Your task to perform on an android device: turn on the 12-hour format for clock Image 0: 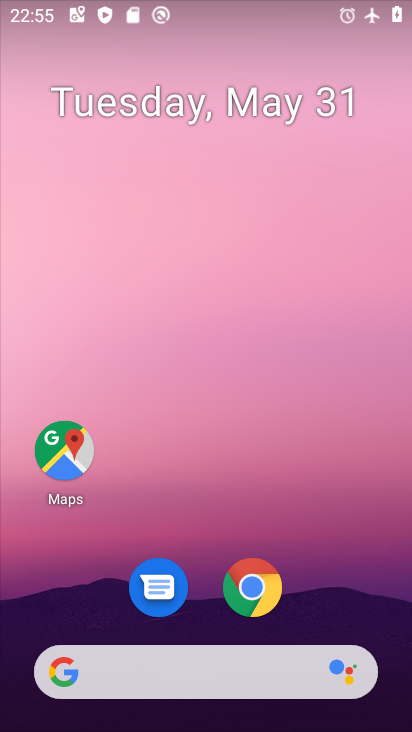
Step 0: drag from (345, 596) to (348, 106)
Your task to perform on an android device: turn on the 12-hour format for clock Image 1: 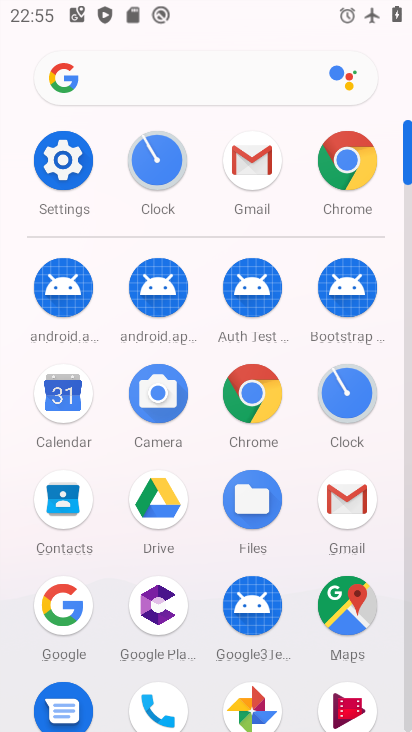
Step 1: drag from (293, 546) to (308, 263)
Your task to perform on an android device: turn on the 12-hour format for clock Image 2: 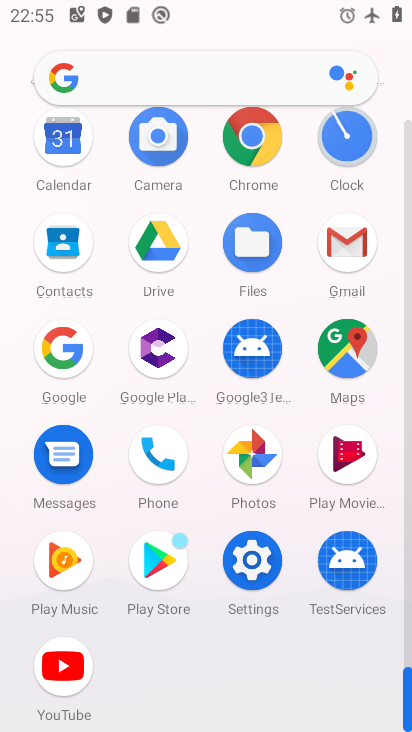
Step 2: drag from (302, 191) to (290, 376)
Your task to perform on an android device: turn on the 12-hour format for clock Image 3: 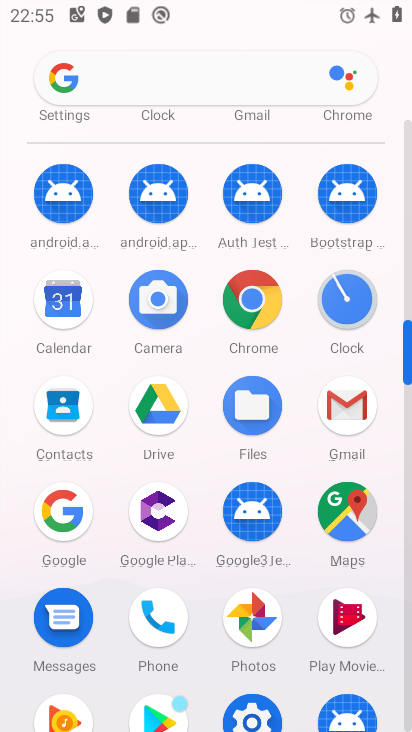
Step 3: drag from (298, 176) to (286, 395)
Your task to perform on an android device: turn on the 12-hour format for clock Image 4: 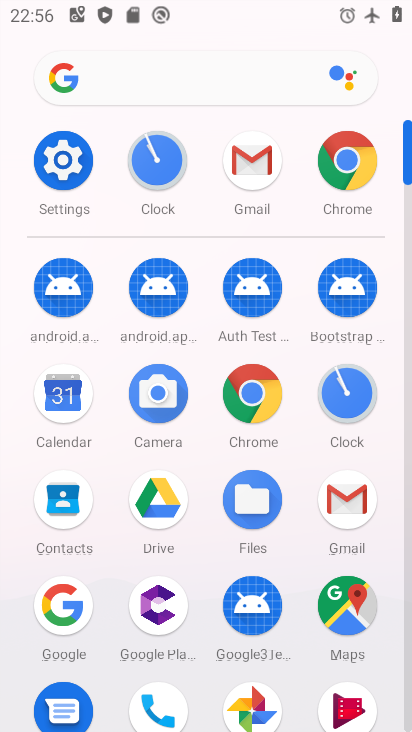
Step 4: drag from (300, 637) to (305, 380)
Your task to perform on an android device: turn on the 12-hour format for clock Image 5: 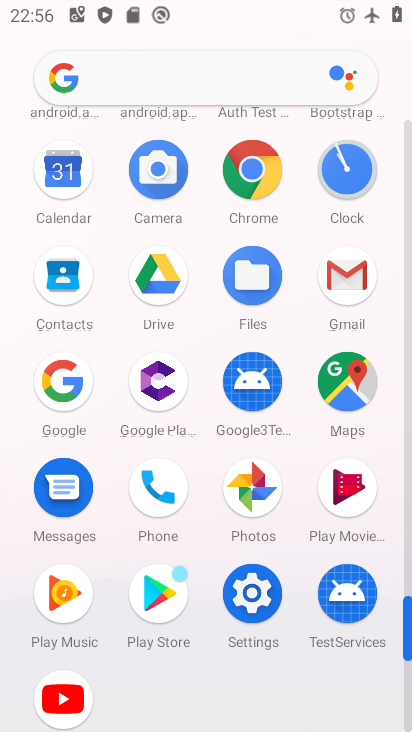
Step 5: drag from (292, 571) to (287, 375)
Your task to perform on an android device: turn on the 12-hour format for clock Image 6: 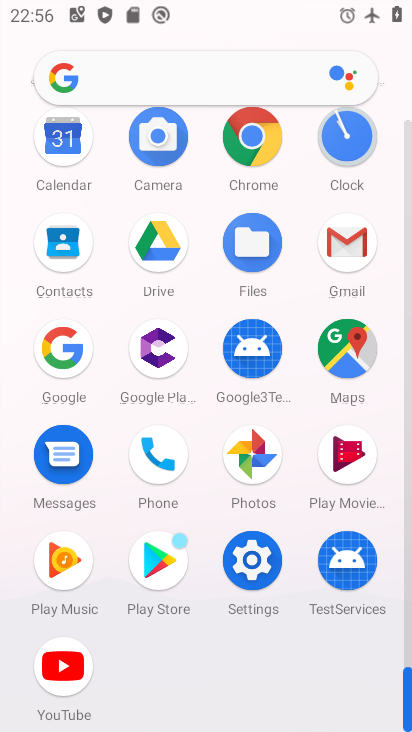
Step 6: drag from (295, 251) to (285, 414)
Your task to perform on an android device: turn on the 12-hour format for clock Image 7: 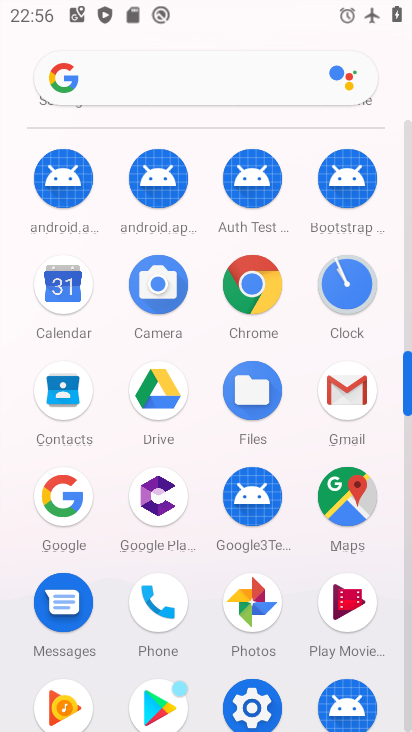
Step 7: drag from (299, 221) to (293, 376)
Your task to perform on an android device: turn on the 12-hour format for clock Image 8: 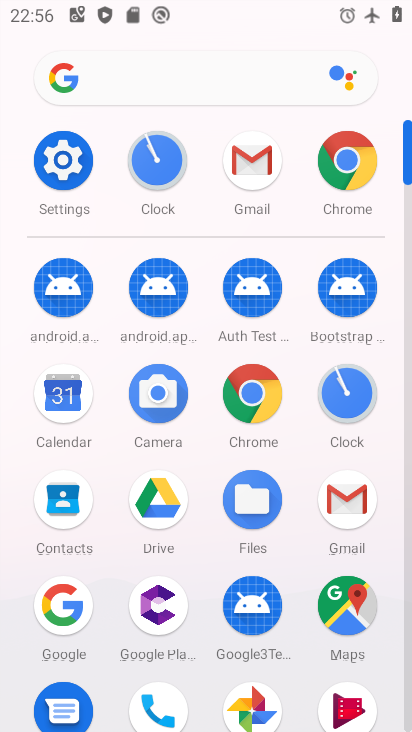
Step 8: drag from (293, 239) to (290, 192)
Your task to perform on an android device: turn on the 12-hour format for clock Image 9: 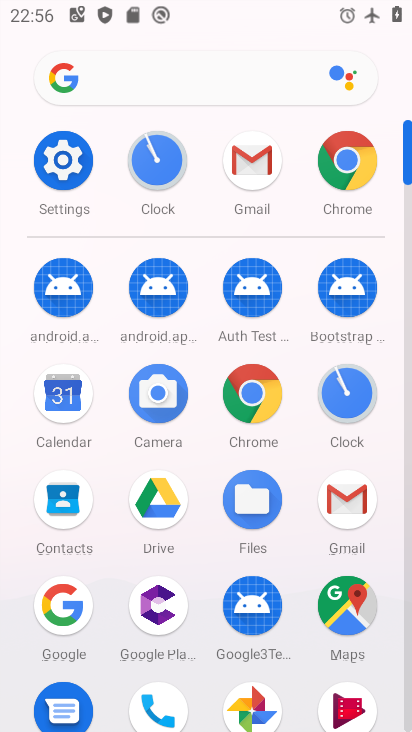
Step 9: drag from (292, 634) to (292, 418)
Your task to perform on an android device: turn on the 12-hour format for clock Image 10: 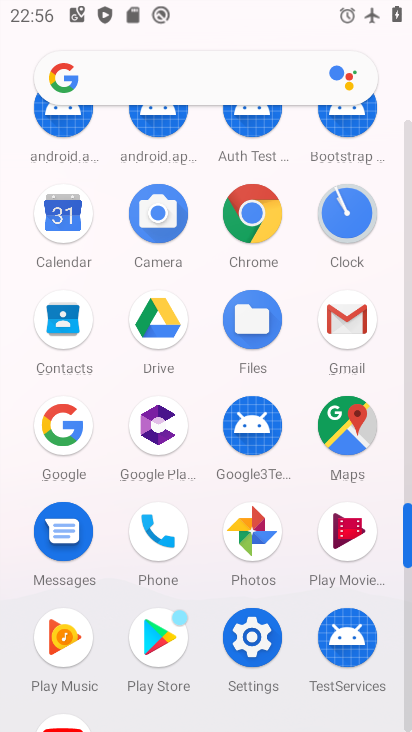
Step 10: drag from (293, 611) to (300, 414)
Your task to perform on an android device: turn on the 12-hour format for clock Image 11: 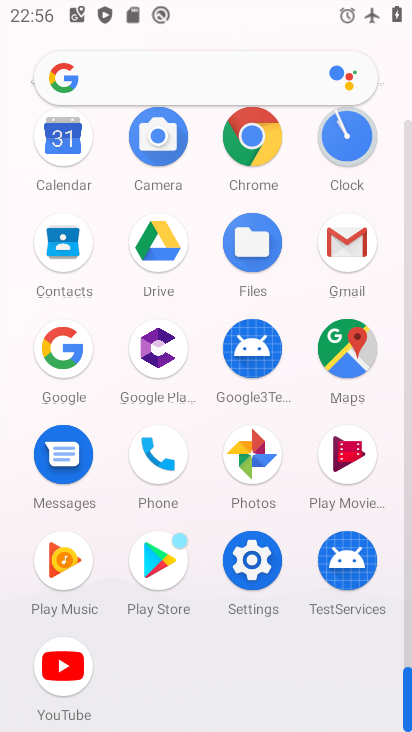
Step 11: drag from (301, 244) to (292, 456)
Your task to perform on an android device: turn on the 12-hour format for clock Image 12: 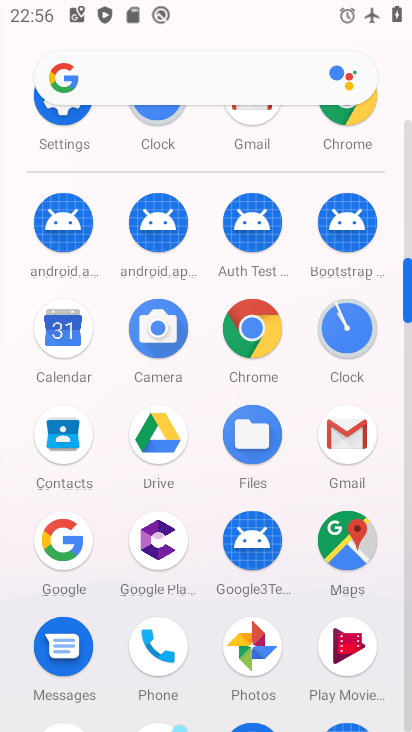
Step 12: click (335, 329)
Your task to perform on an android device: turn on the 12-hour format for clock Image 13: 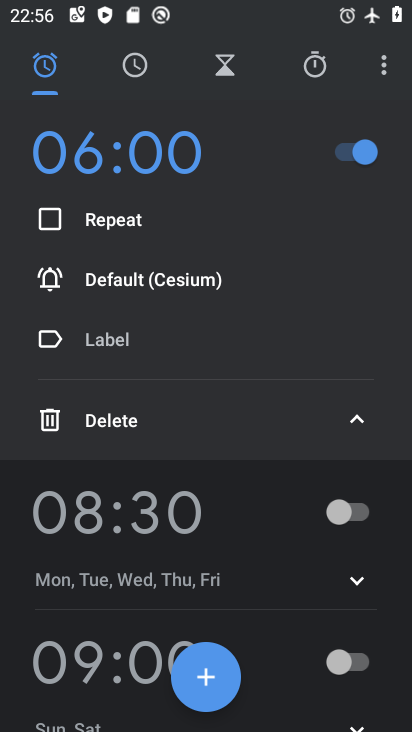
Step 13: click (382, 80)
Your task to perform on an android device: turn on the 12-hour format for clock Image 14: 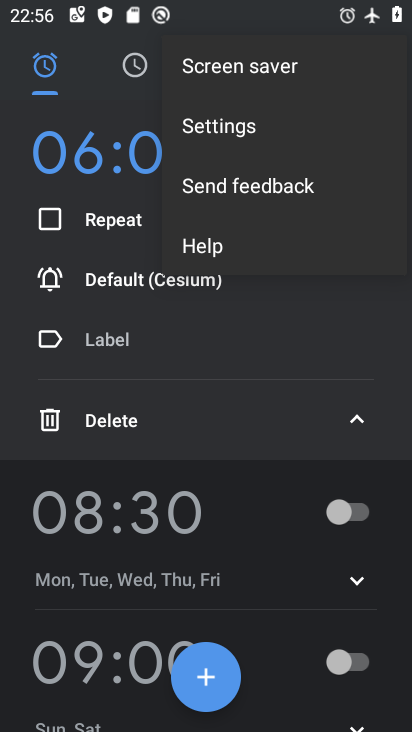
Step 14: click (265, 124)
Your task to perform on an android device: turn on the 12-hour format for clock Image 15: 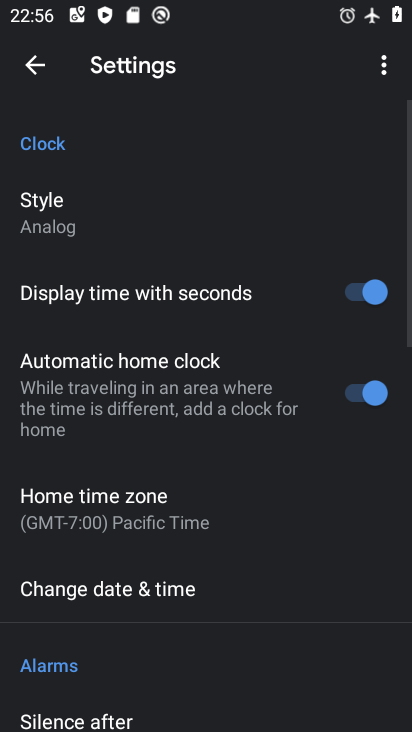
Step 15: drag from (283, 566) to (292, 365)
Your task to perform on an android device: turn on the 12-hour format for clock Image 16: 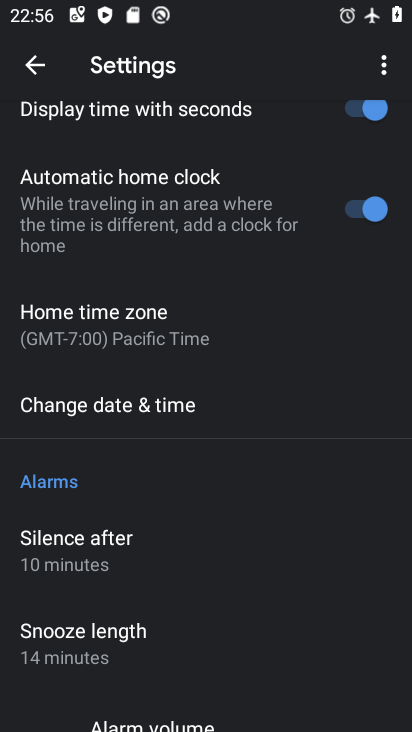
Step 16: drag from (271, 510) to (272, 384)
Your task to perform on an android device: turn on the 12-hour format for clock Image 17: 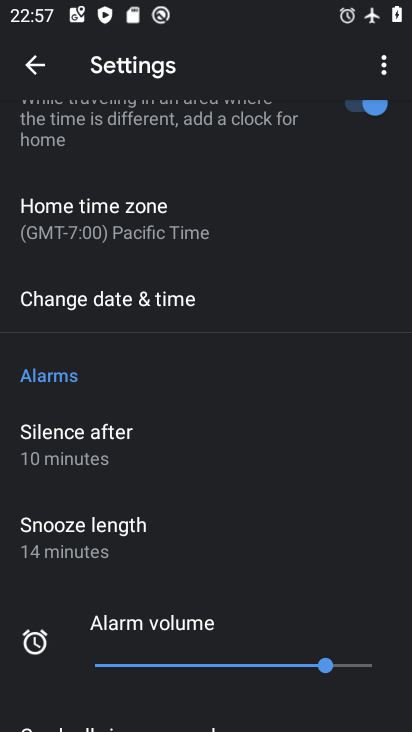
Step 17: click (212, 306)
Your task to perform on an android device: turn on the 12-hour format for clock Image 18: 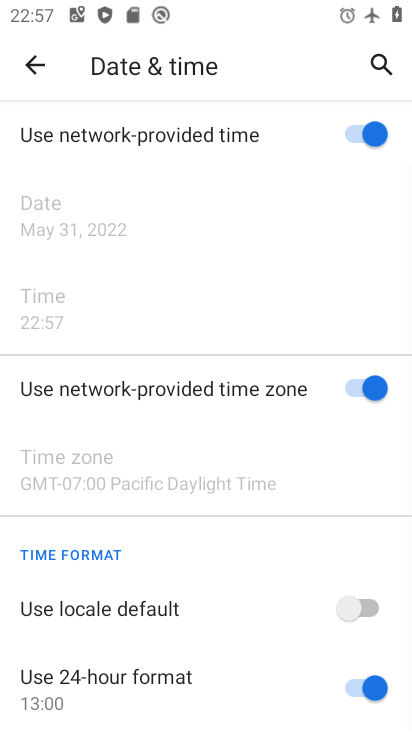
Step 18: drag from (267, 565) to (288, 394)
Your task to perform on an android device: turn on the 12-hour format for clock Image 19: 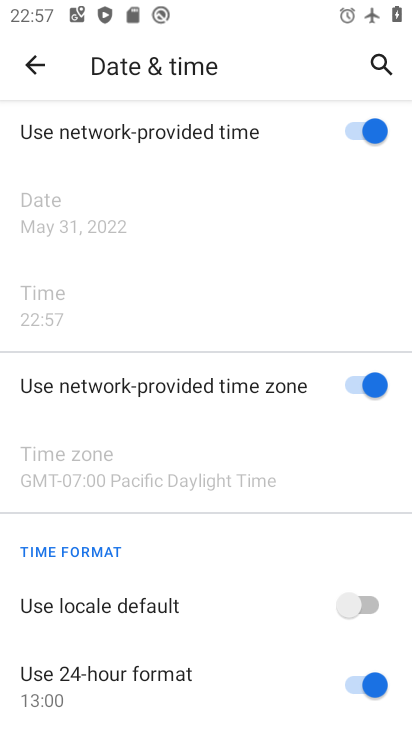
Step 19: click (365, 683)
Your task to perform on an android device: turn on the 12-hour format for clock Image 20: 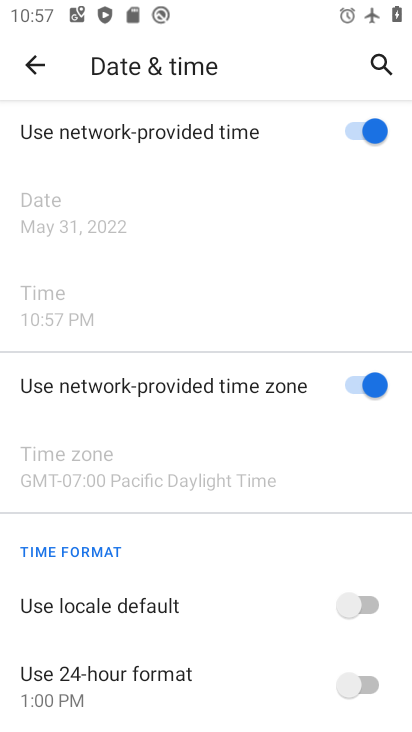
Step 20: task complete